Your task to perform on an android device: see creations saved in the google photos Image 0: 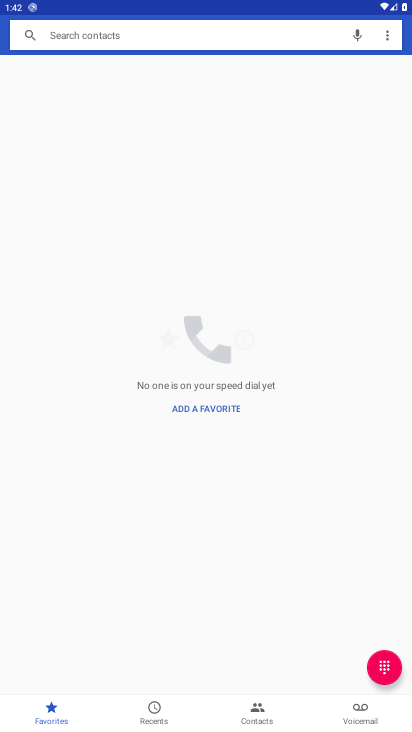
Step 0: press home button
Your task to perform on an android device: see creations saved in the google photos Image 1: 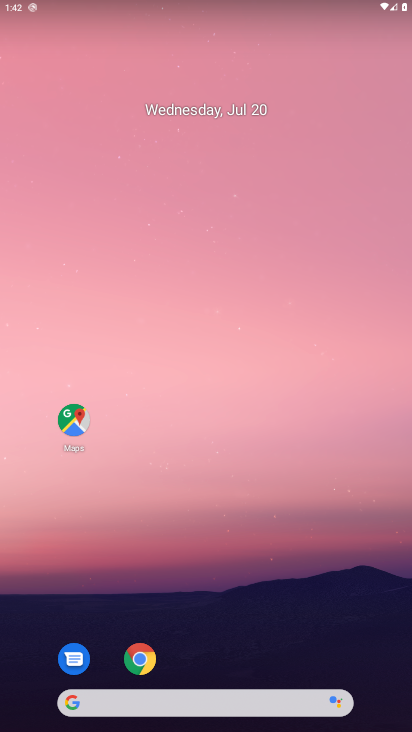
Step 1: drag from (41, 674) to (128, 417)
Your task to perform on an android device: see creations saved in the google photos Image 2: 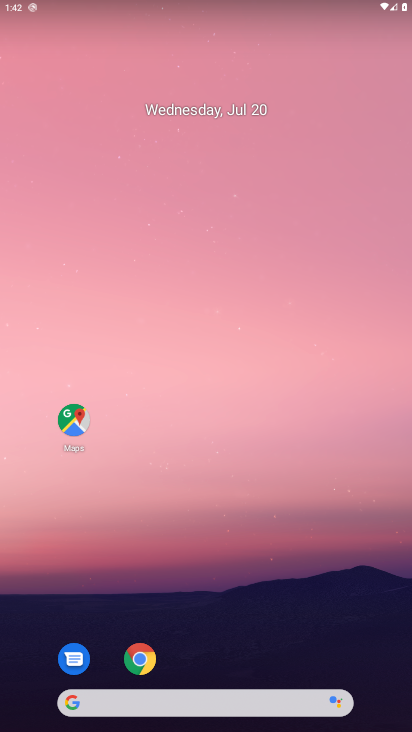
Step 2: drag from (58, 644) to (177, 292)
Your task to perform on an android device: see creations saved in the google photos Image 3: 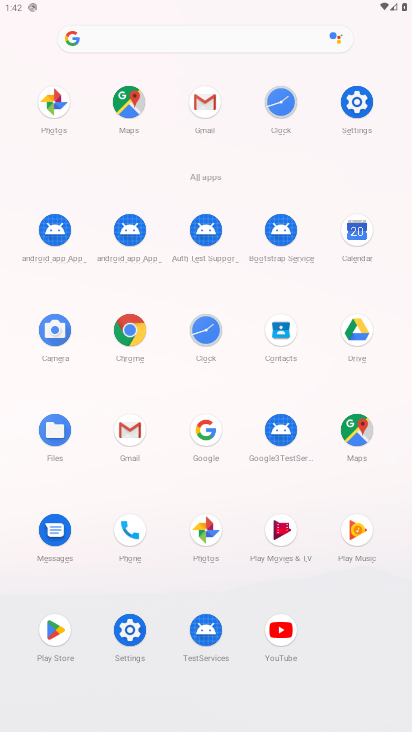
Step 3: click (211, 532)
Your task to perform on an android device: see creations saved in the google photos Image 4: 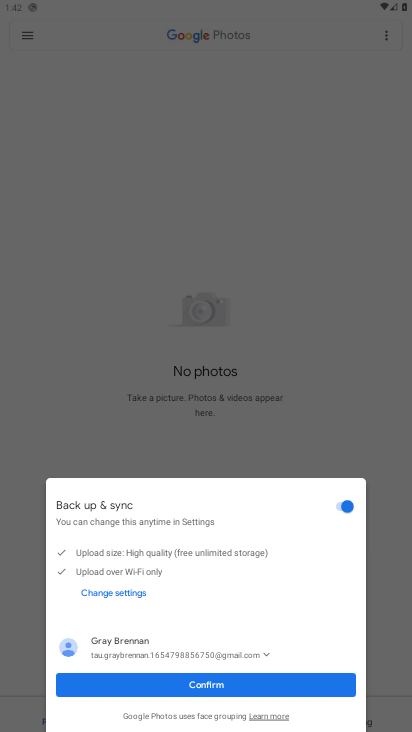
Step 4: click (217, 691)
Your task to perform on an android device: see creations saved in the google photos Image 5: 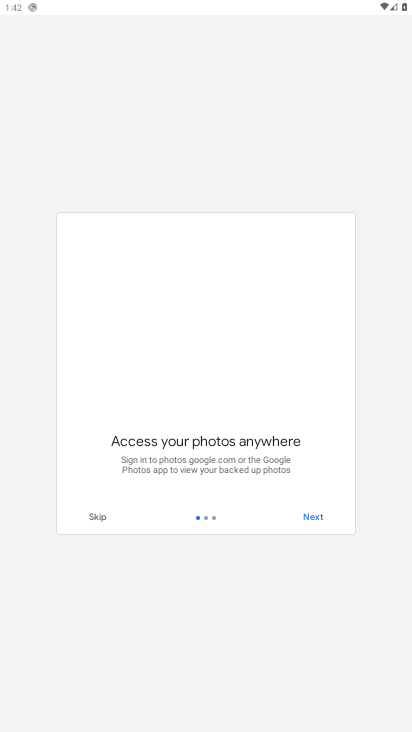
Step 5: click (325, 512)
Your task to perform on an android device: see creations saved in the google photos Image 6: 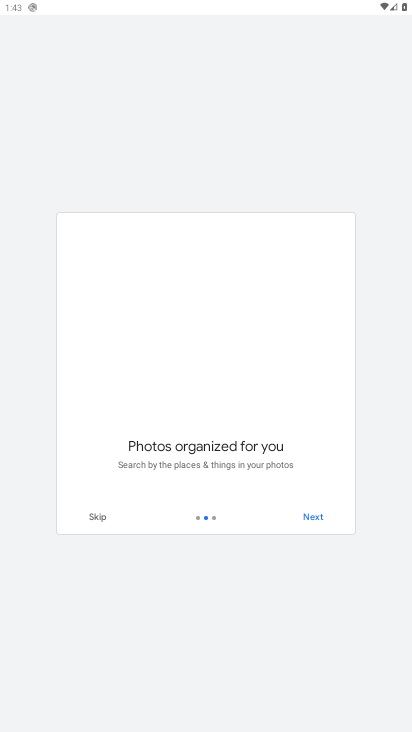
Step 6: task complete